Your task to perform on an android device: turn pop-ups off in chrome Image 0: 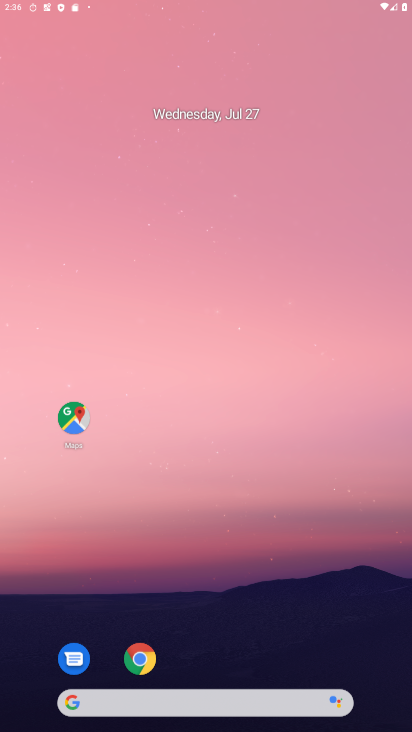
Step 0: click (187, 109)
Your task to perform on an android device: turn pop-ups off in chrome Image 1: 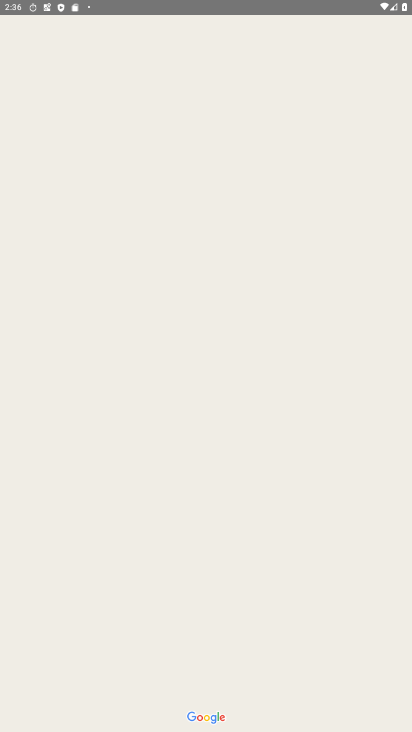
Step 1: press home button
Your task to perform on an android device: turn pop-ups off in chrome Image 2: 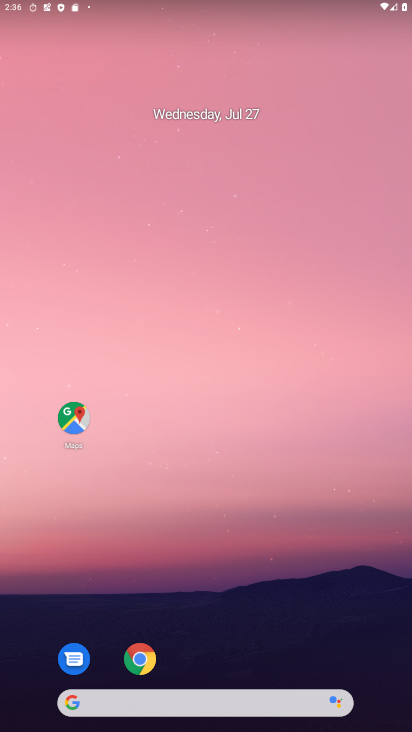
Step 2: click (133, 652)
Your task to perform on an android device: turn pop-ups off in chrome Image 3: 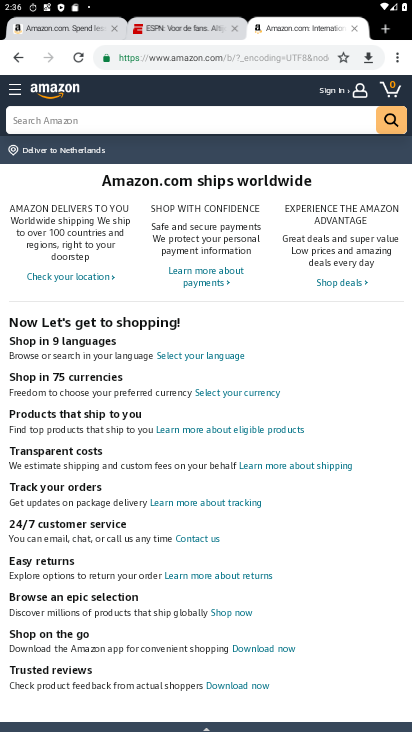
Step 3: click (396, 63)
Your task to perform on an android device: turn pop-ups off in chrome Image 4: 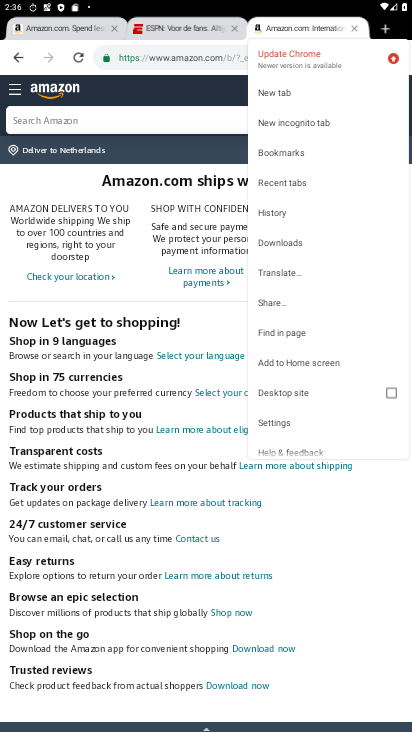
Step 4: click (277, 424)
Your task to perform on an android device: turn pop-ups off in chrome Image 5: 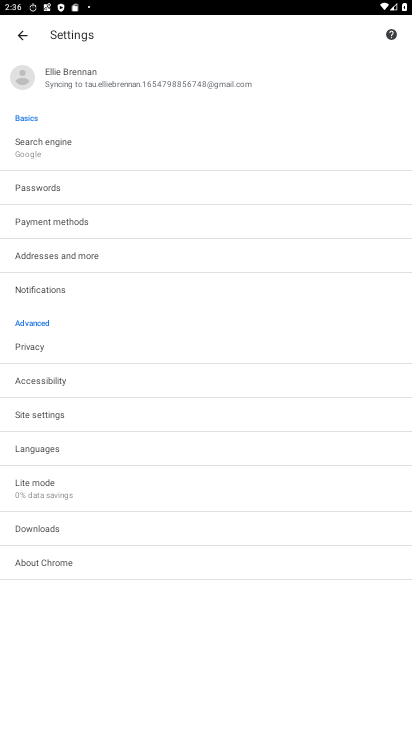
Step 5: click (42, 419)
Your task to perform on an android device: turn pop-ups off in chrome Image 6: 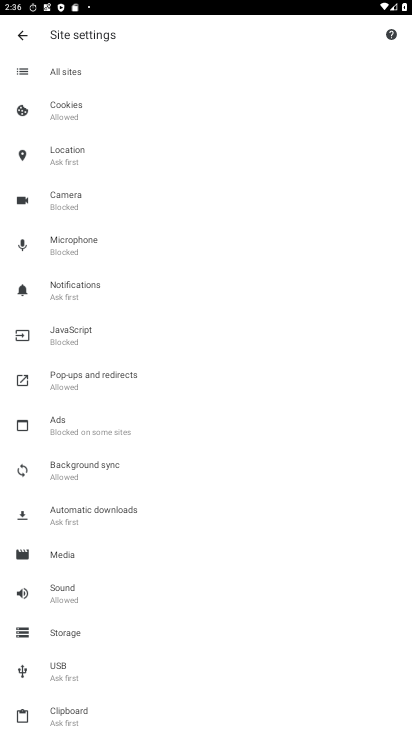
Step 6: click (80, 375)
Your task to perform on an android device: turn pop-ups off in chrome Image 7: 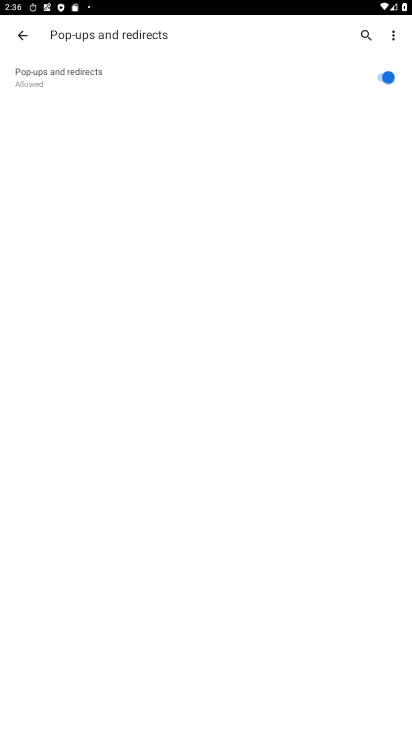
Step 7: click (383, 73)
Your task to perform on an android device: turn pop-ups off in chrome Image 8: 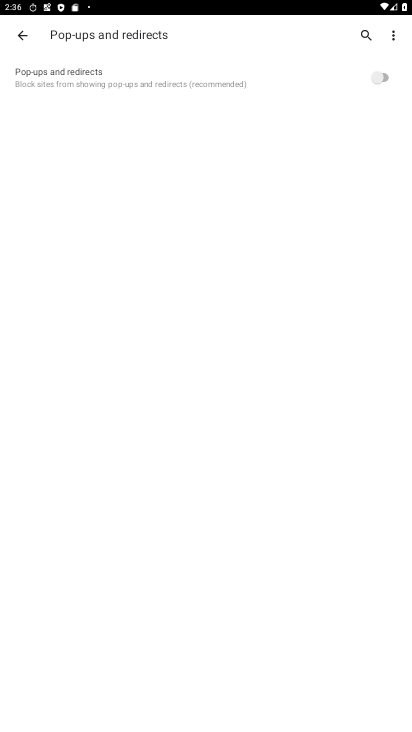
Step 8: task complete